Your task to perform on an android device: Open calendar and show me the first week of next month Image 0: 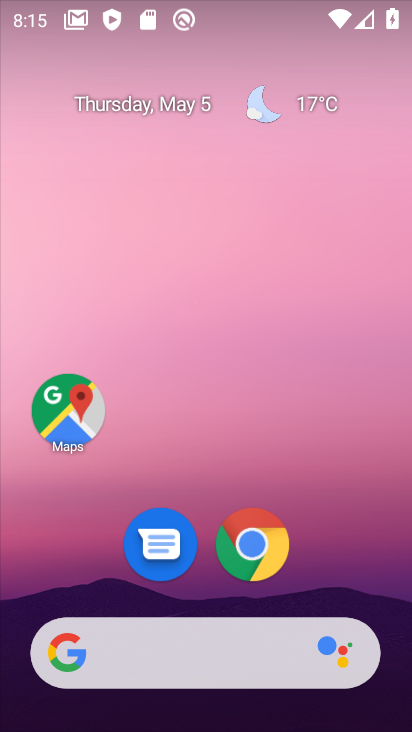
Step 0: drag from (364, 580) to (328, 167)
Your task to perform on an android device: Open calendar and show me the first week of next month Image 1: 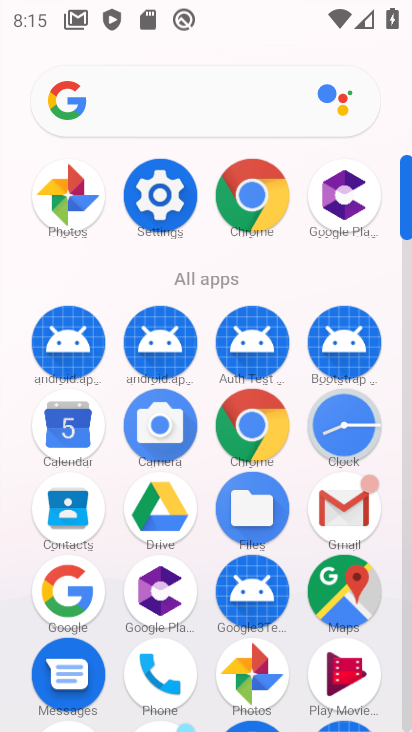
Step 1: click (79, 437)
Your task to perform on an android device: Open calendar and show me the first week of next month Image 2: 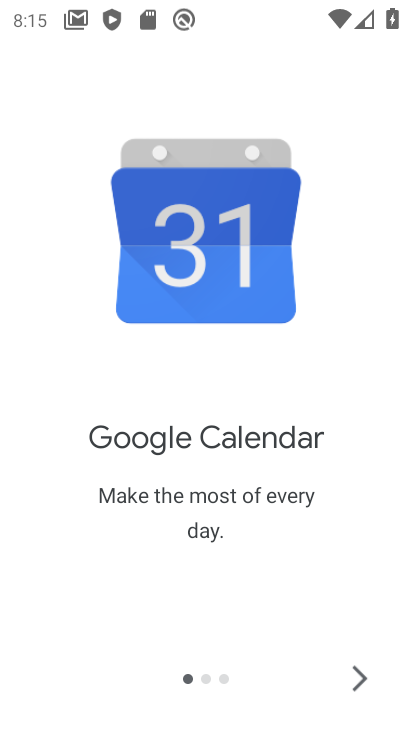
Step 2: click (357, 687)
Your task to perform on an android device: Open calendar and show me the first week of next month Image 3: 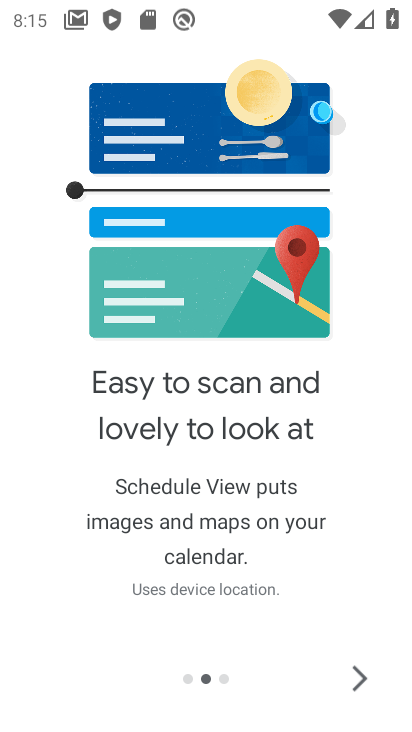
Step 3: click (357, 687)
Your task to perform on an android device: Open calendar and show me the first week of next month Image 4: 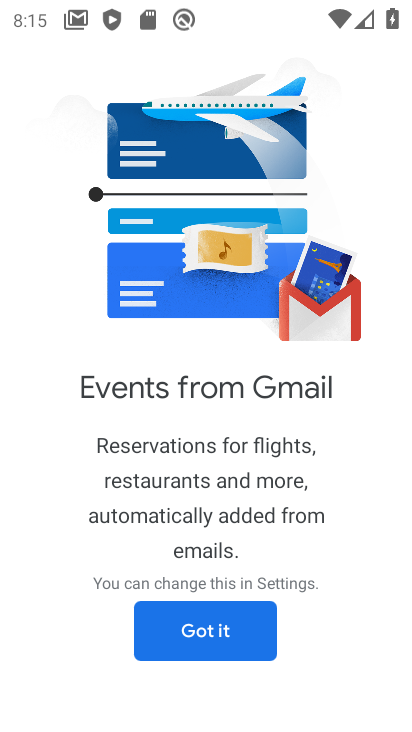
Step 4: click (261, 645)
Your task to perform on an android device: Open calendar and show me the first week of next month Image 5: 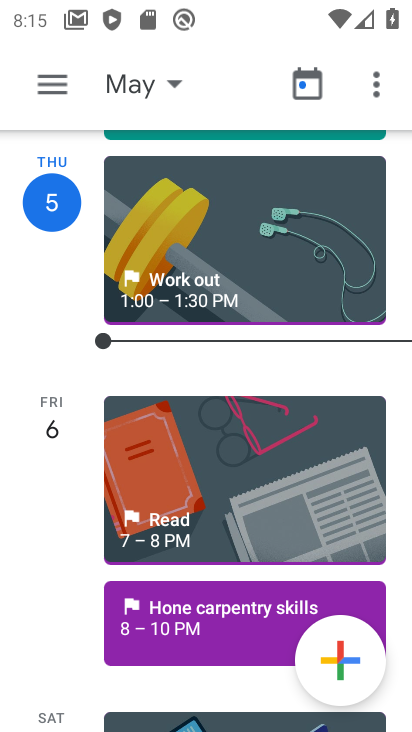
Step 5: click (158, 91)
Your task to perform on an android device: Open calendar and show me the first week of next month Image 6: 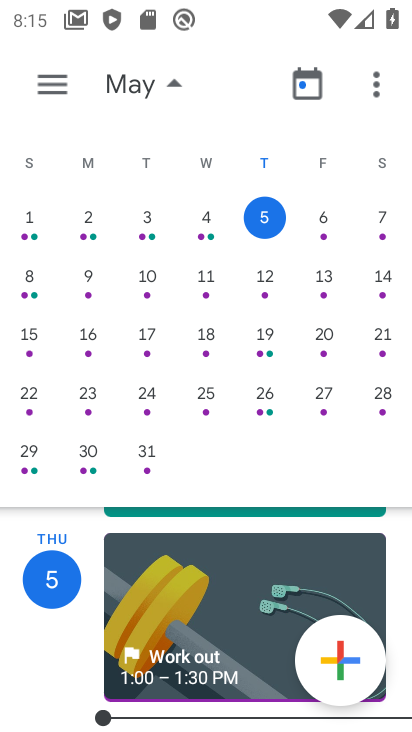
Step 6: drag from (392, 326) to (65, 351)
Your task to perform on an android device: Open calendar and show me the first week of next month Image 7: 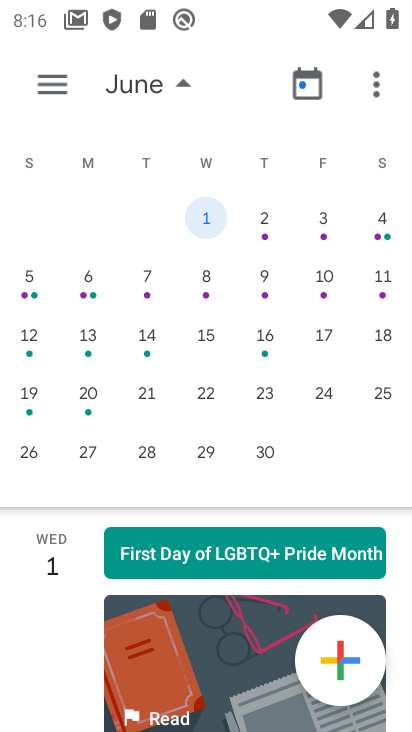
Step 7: click (202, 280)
Your task to perform on an android device: Open calendar and show me the first week of next month Image 8: 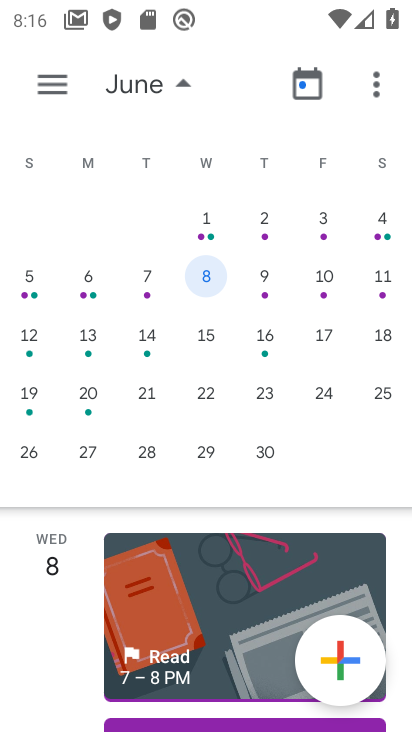
Step 8: task complete